Your task to perform on an android device: create a new album in the google photos Image 0: 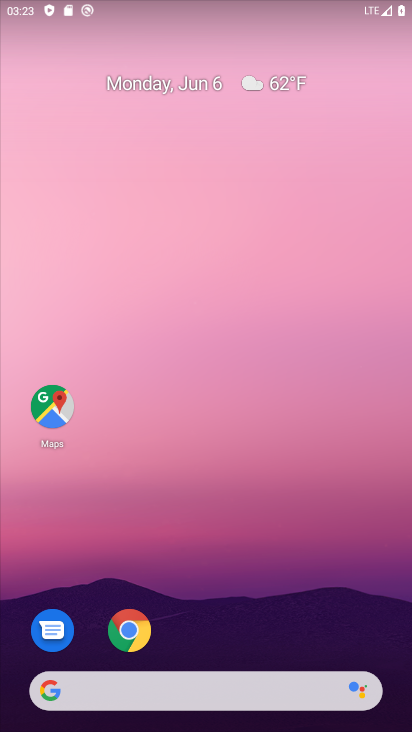
Step 0: drag from (269, 656) to (283, 56)
Your task to perform on an android device: create a new album in the google photos Image 1: 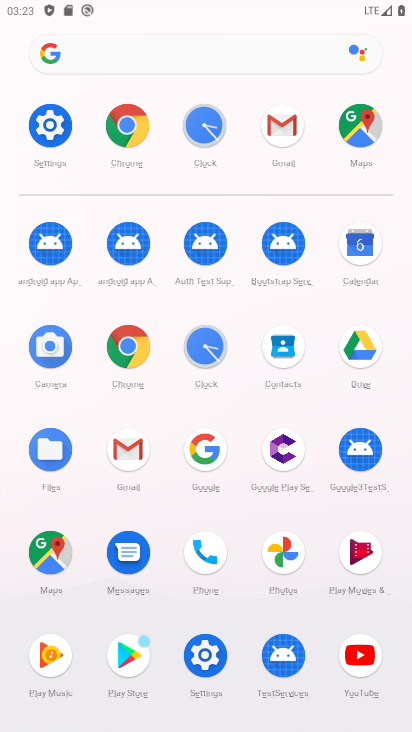
Step 1: click (275, 552)
Your task to perform on an android device: create a new album in the google photos Image 2: 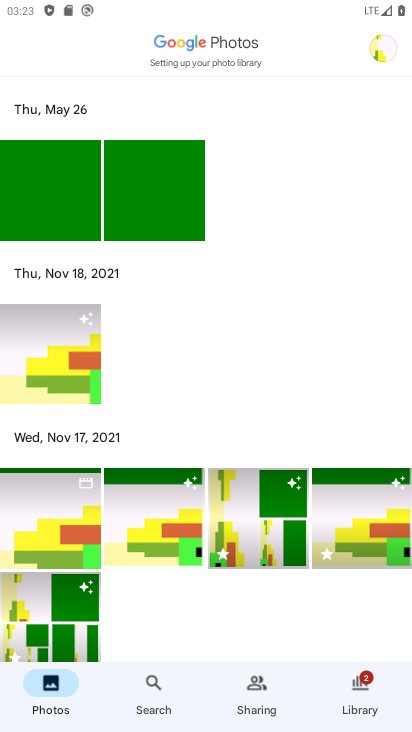
Step 2: click (86, 491)
Your task to perform on an android device: create a new album in the google photos Image 3: 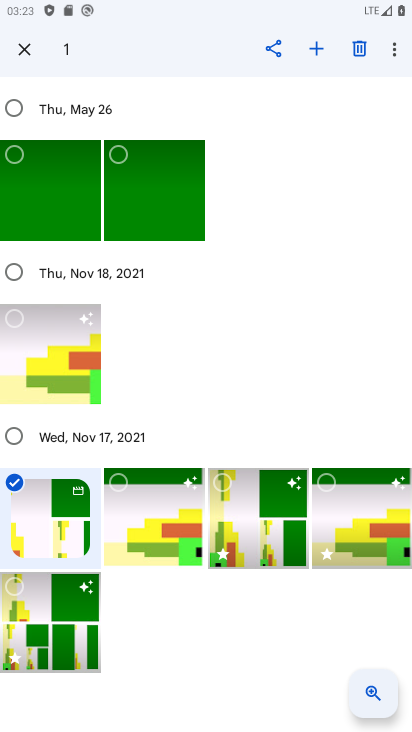
Step 3: click (62, 390)
Your task to perform on an android device: create a new album in the google photos Image 4: 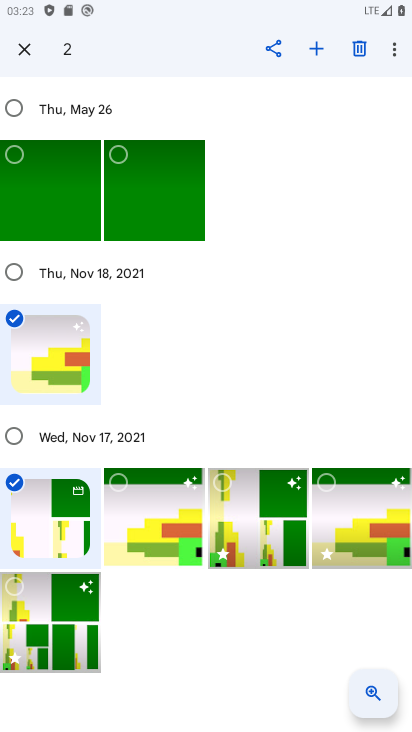
Step 4: click (60, 209)
Your task to perform on an android device: create a new album in the google photos Image 5: 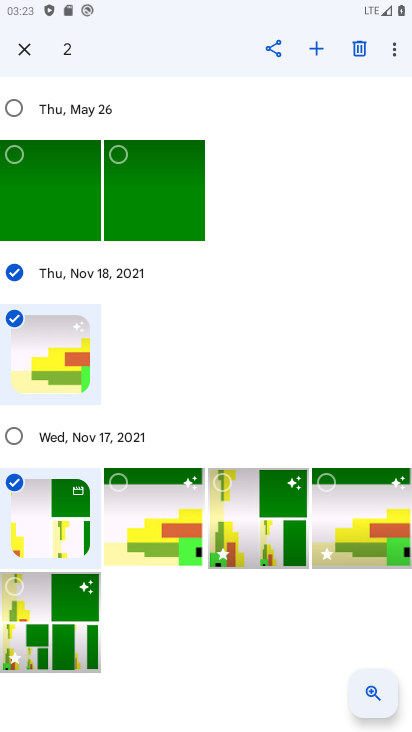
Step 5: click (132, 201)
Your task to perform on an android device: create a new album in the google photos Image 6: 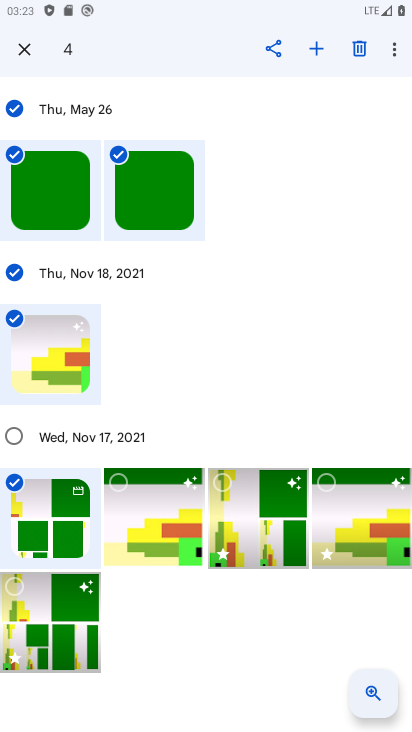
Step 6: click (303, 48)
Your task to perform on an android device: create a new album in the google photos Image 7: 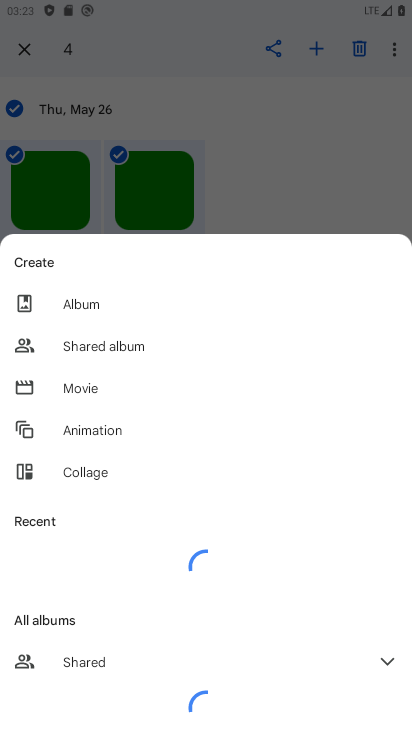
Step 7: click (68, 306)
Your task to perform on an android device: create a new album in the google photos Image 8: 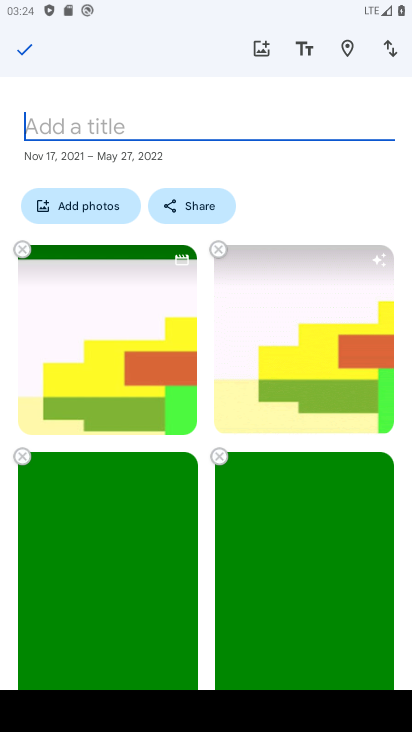
Step 8: type "hyugtfdrfdxt"
Your task to perform on an android device: create a new album in the google photos Image 9: 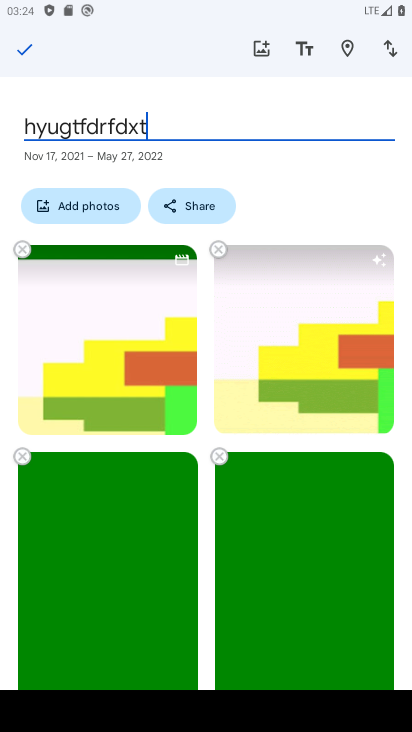
Step 9: click (14, 48)
Your task to perform on an android device: create a new album in the google photos Image 10: 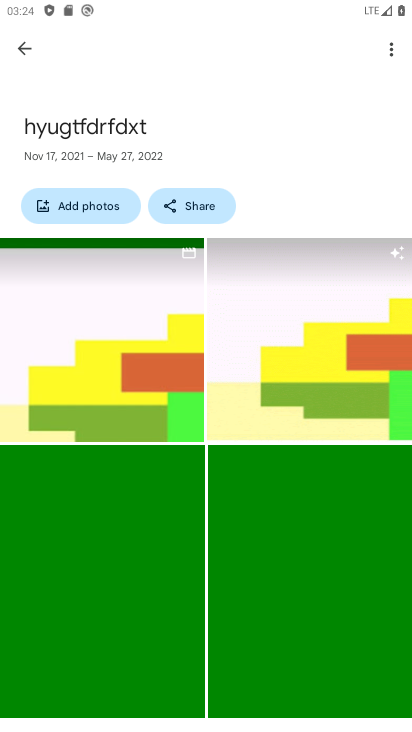
Step 10: task complete